Your task to perform on an android device: What's the news in Myanmar? Image 0: 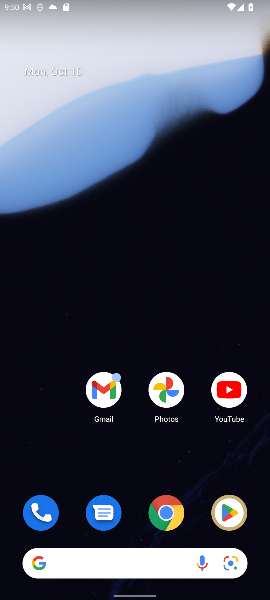
Step 0: click (117, 563)
Your task to perform on an android device: What's the news in Myanmar? Image 1: 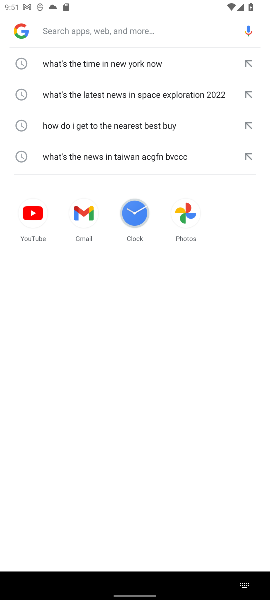
Step 1: type "What's the news in Myanmar?"
Your task to perform on an android device: What's the news in Myanmar? Image 2: 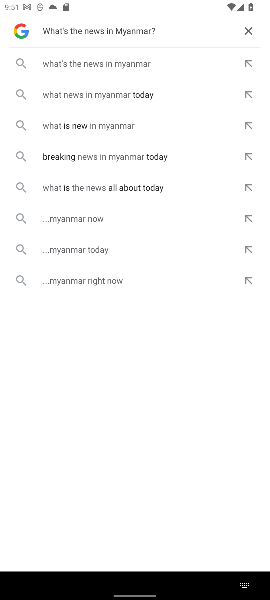
Step 2: click (116, 64)
Your task to perform on an android device: What's the news in Myanmar? Image 3: 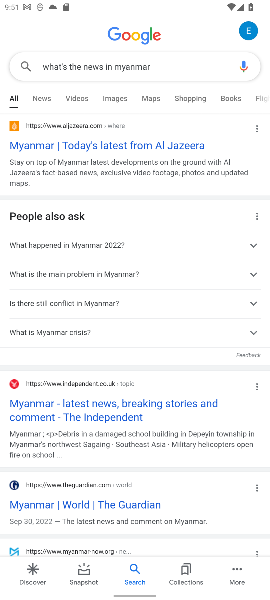
Step 3: task complete